Your task to perform on an android device: turn off data saver in the chrome app Image 0: 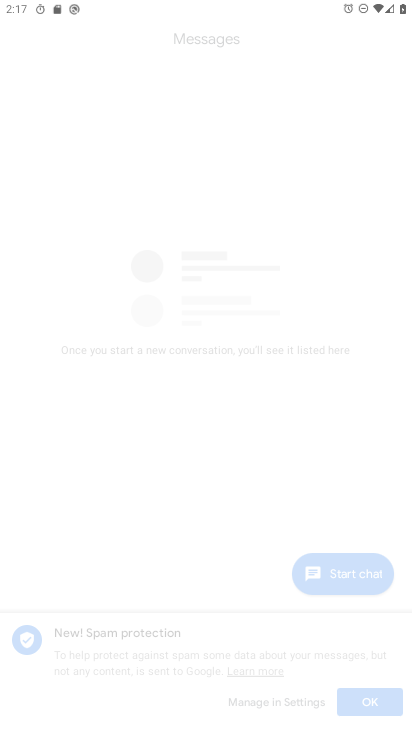
Step 0: drag from (190, 642) to (272, 108)
Your task to perform on an android device: turn off data saver in the chrome app Image 1: 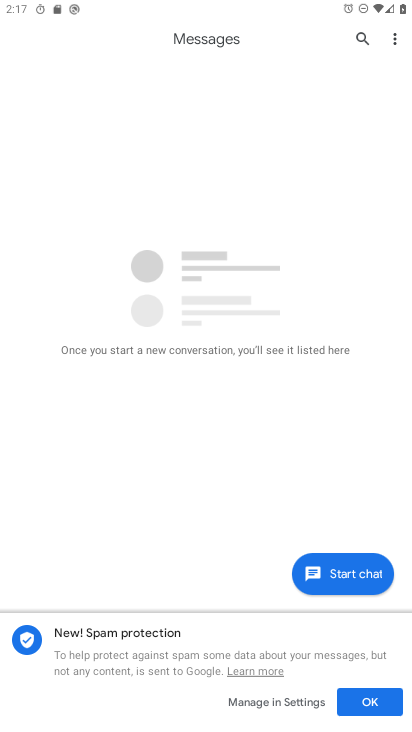
Step 1: drag from (159, 572) to (121, 223)
Your task to perform on an android device: turn off data saver in the chrome app Image 2: 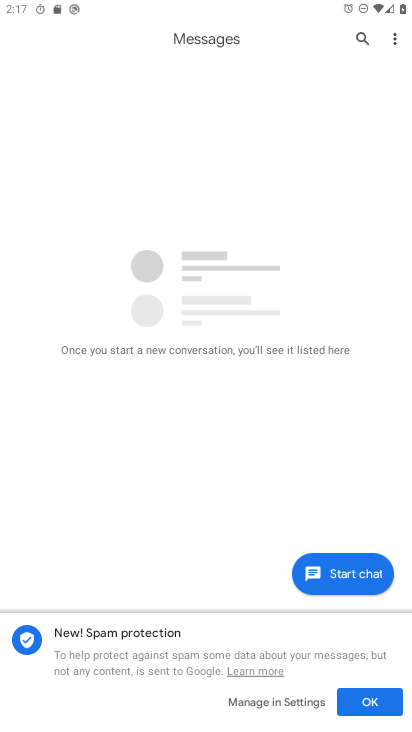
Step 2: press home button
Your task to perform on an android device: turn off data saver in the chrome app Image 3: 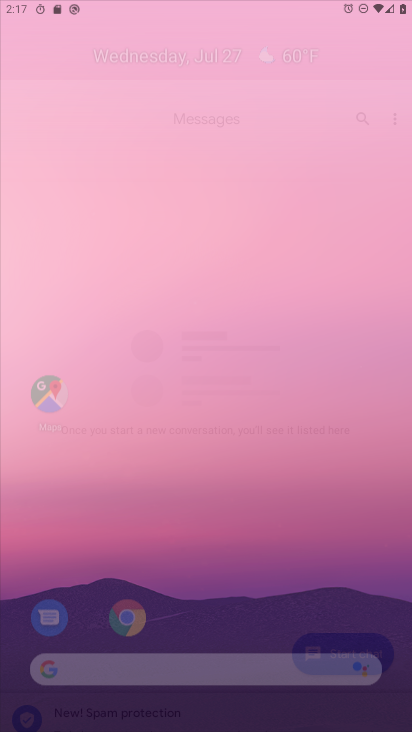
Step 3: drag from (176, 564) to (172, 174)
Your task to perform on an android device: turn off data saver in the chrome app Image 4: 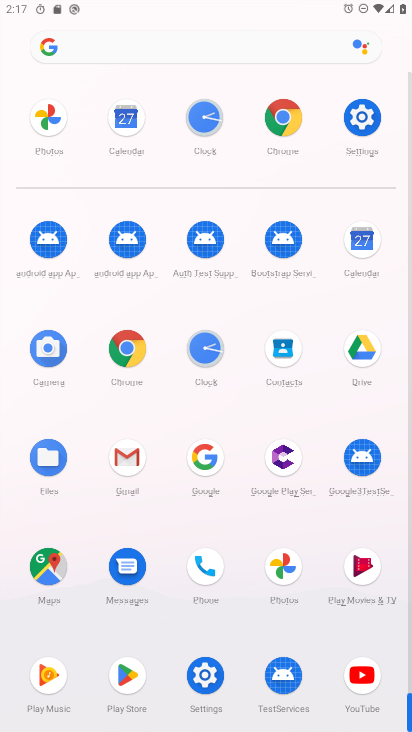
Step 4: click (121, 341)
Your task to perform on an android device: turn off data saver in the chrome app Image 5: 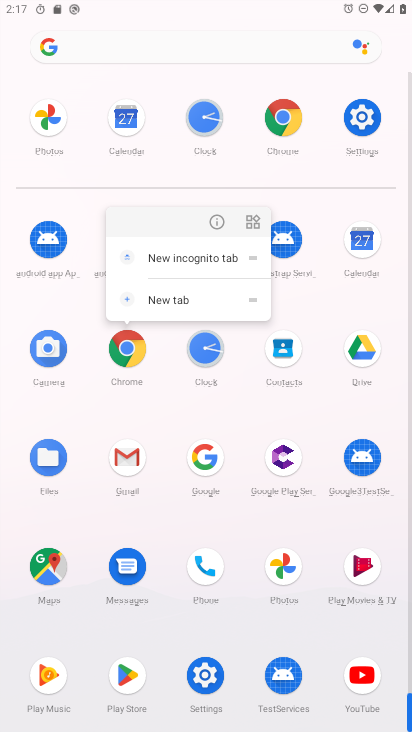
Step 5: click (216, 223)
Your task to perform on an android device: turn off data saver in the chrome app Image 6: 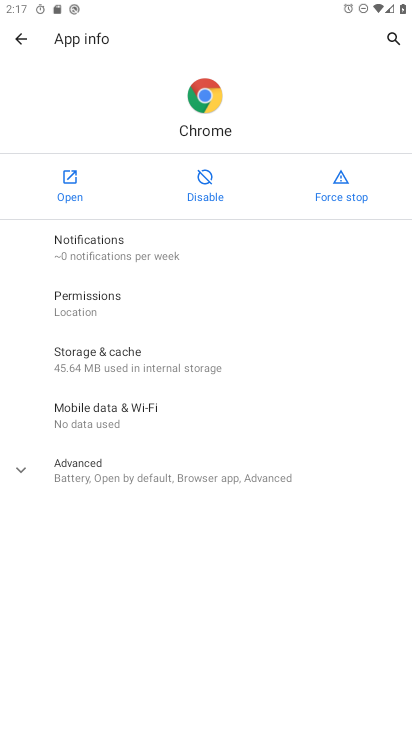
Step 6: click (76, 179)
Your task to perform on an android device: turn off data saver in the chrome app Image 7: 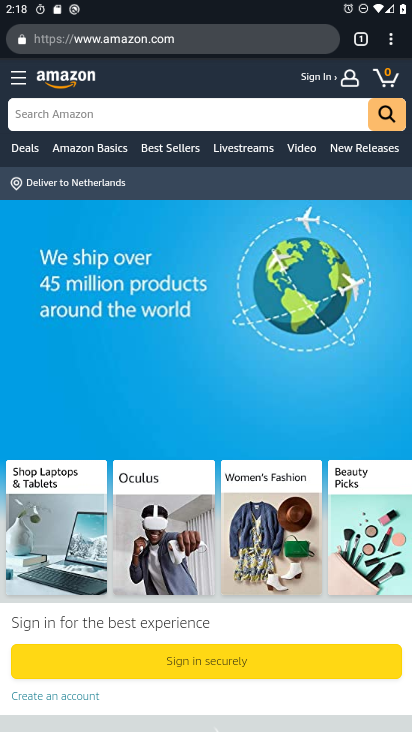
Step 7: drag from (389, 41) to (253, 497)
Your task to perform on an android device: turn off data saver in the chrome app Image 8: 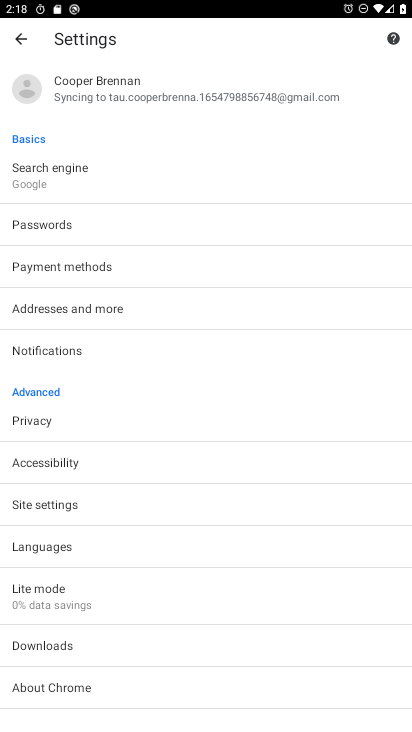
Step 8: click (72, 587)
Your task to perform on an android device: turn off data saver in the chrome app Image 9: 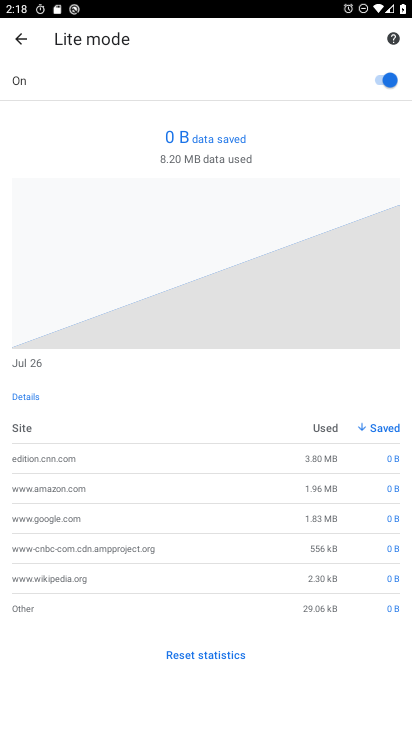
Step 9: drag from (201, 498) to (263, 353)
Your task to perform on an android device: turn off data saver in the chrome app Image 10: 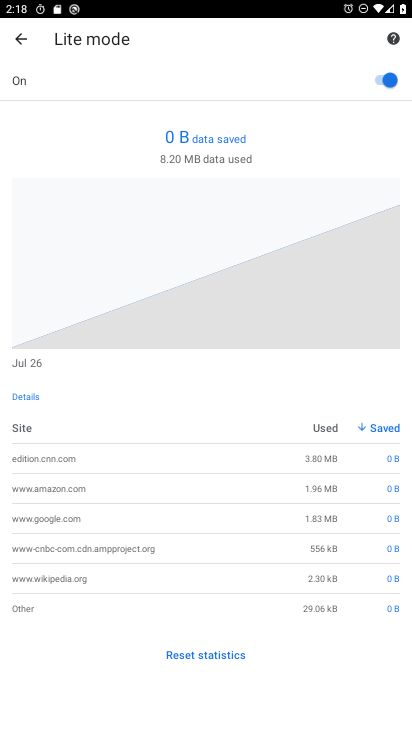
Step 10: click (383, 78)
Your task to perform on an android device: turn off data saver in the chrome app Image 11: 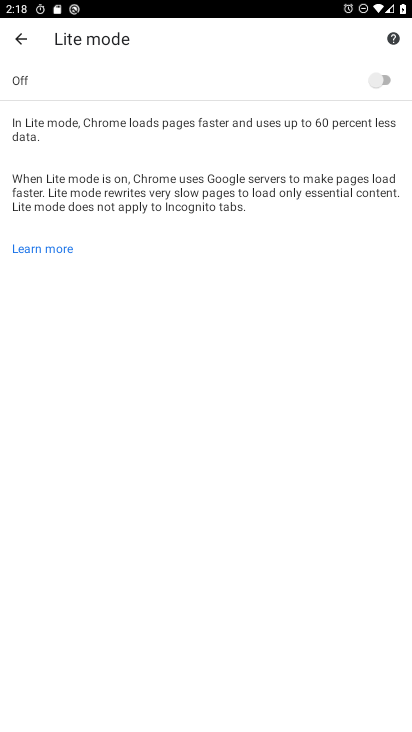
Step 11: task complete